Your task to perform on an android device: Open calendar and show me the first week of next month Image 0: 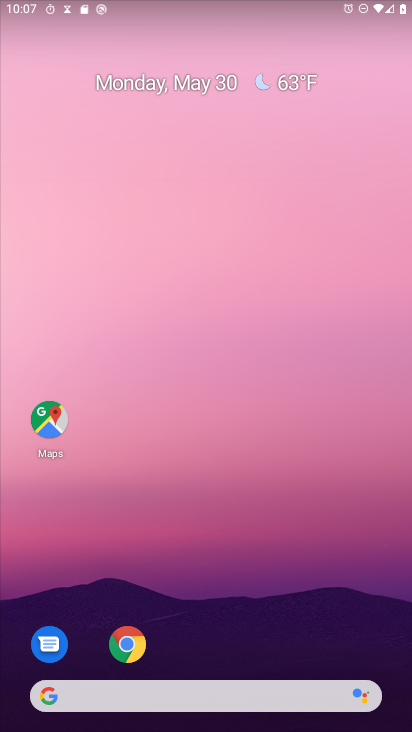
Step 0: drag from (225, 632) to (276, 39)
Your task to perform on an android device: Open calendar and show me the first week of next month Image 1: 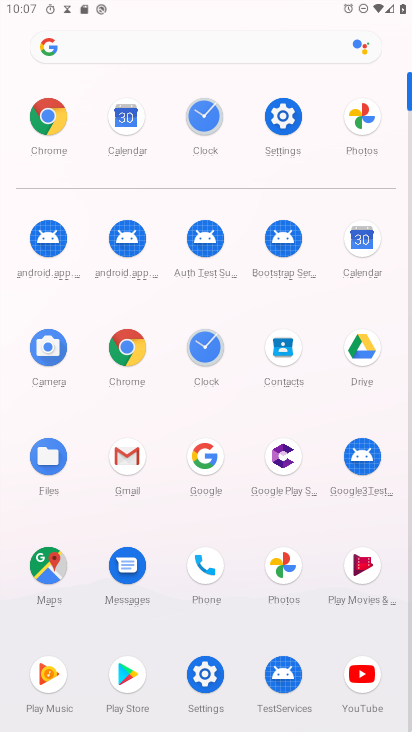
Step 1: click (357, 236)
Your task to perform on an android device: Open calendar and show me the first week of next month Image 2: 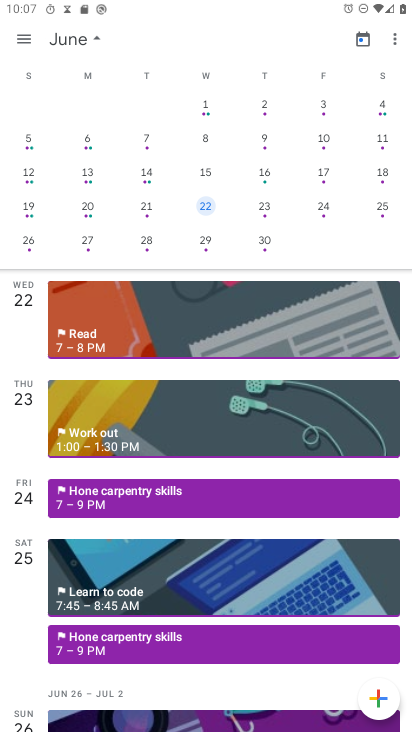
Step 2: click (267, 103)
Your task to perform on an android device: Open calendar and show me the first week of next month Image 3: 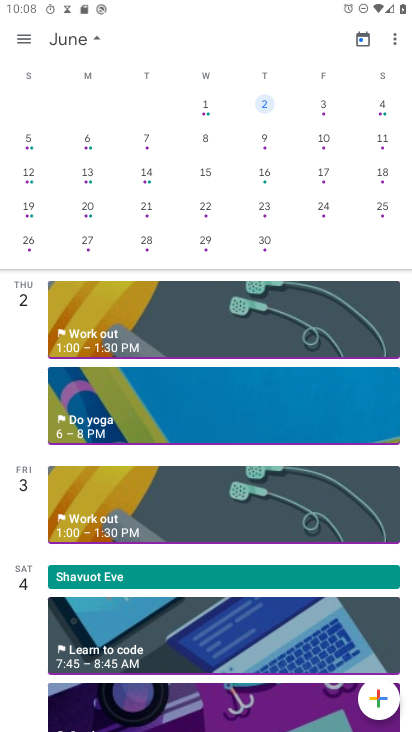
Step 3: task complete